Your task to perform on an android device: change notification settings in the gmail app Image 0: 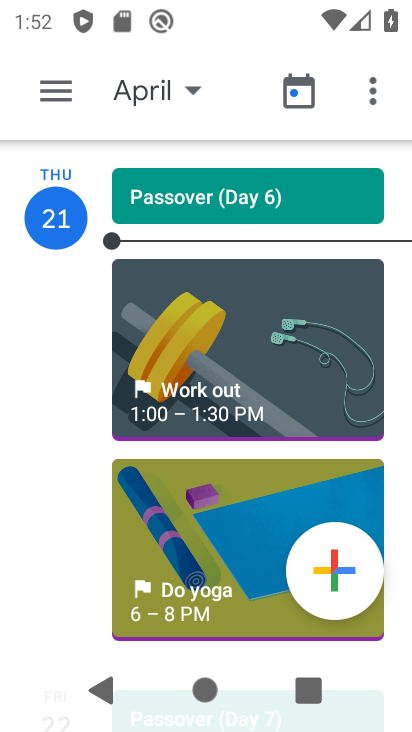
Step 0: press home button
Your task to perform on an android device: change notification settings in the gmail app Image 1: 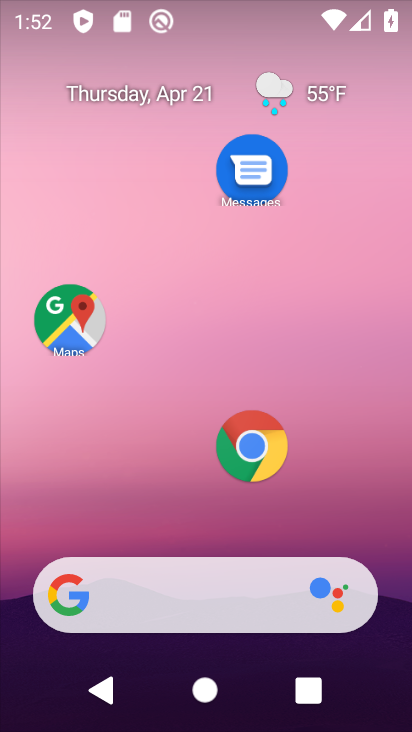
Step 1: drag from (166, 540) to (238, 69)
Your task to perform on an android device: change notification settings in the gmail app Image 2: 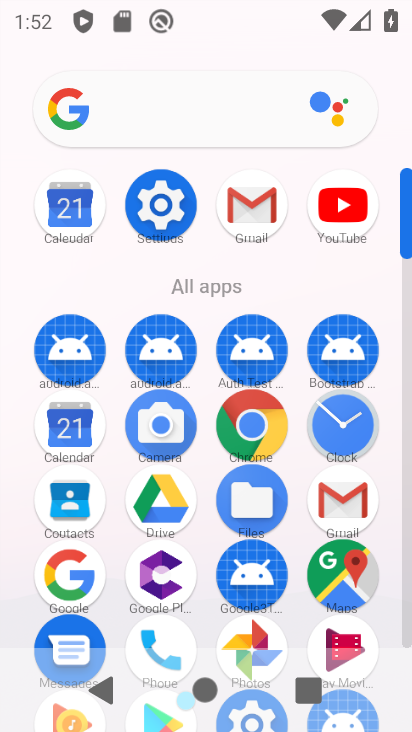
Step 2: click (254, 199)
Your task to perform on an android device: change notification settings in the gmail app Image 3: 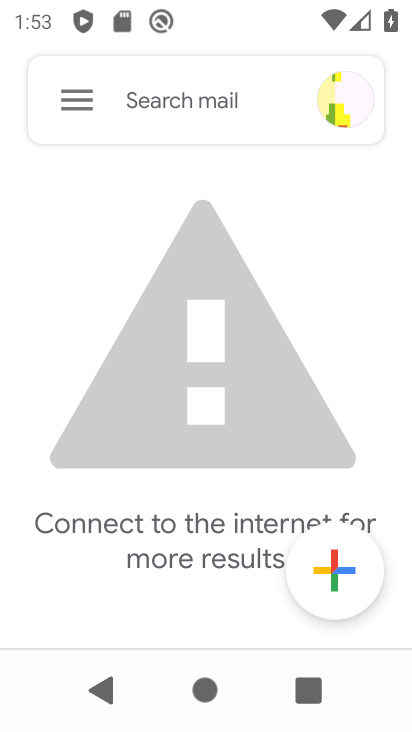
Step 3: click (79, 92)
Your task to perform on an android device: change notification settings in the gmail app Image 4: 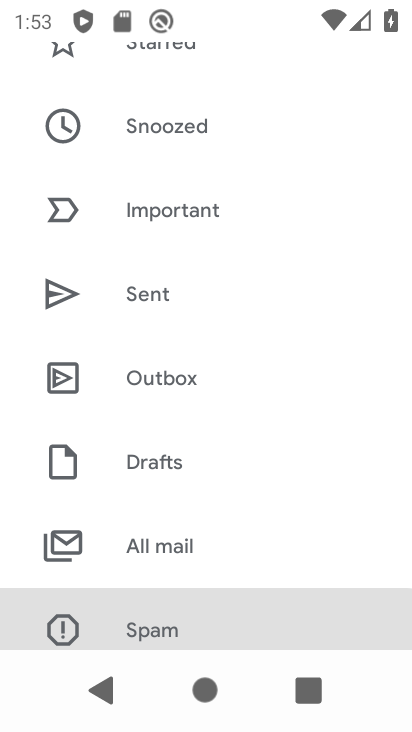
Step 4: drag from (148, 520) to (165, 367)
Your task to perform on an android device: change notification settings in the gmail app Image 5: 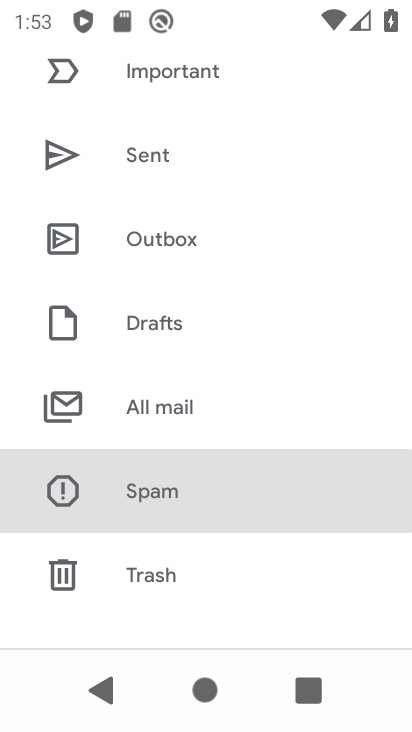
Step 5: drag from (200, 571) to (240, 412)
Your task to perform on an android device: change notification settings in the gmail app Image 6: 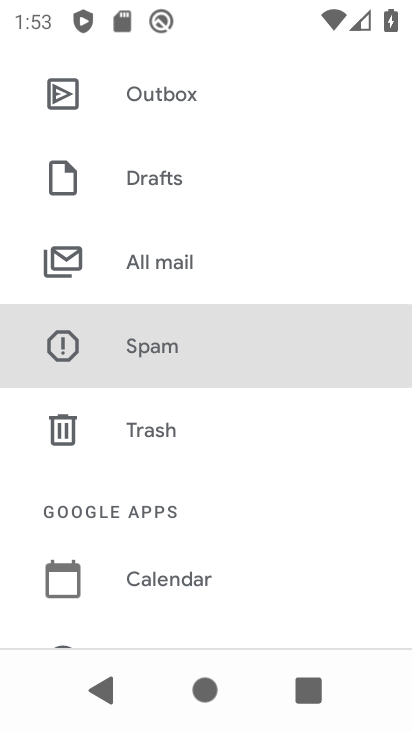
Step 6: drag from (202, 534) to (250, 383)
Your task to perform on an android device: change notification settings in the gmail app Image 7: 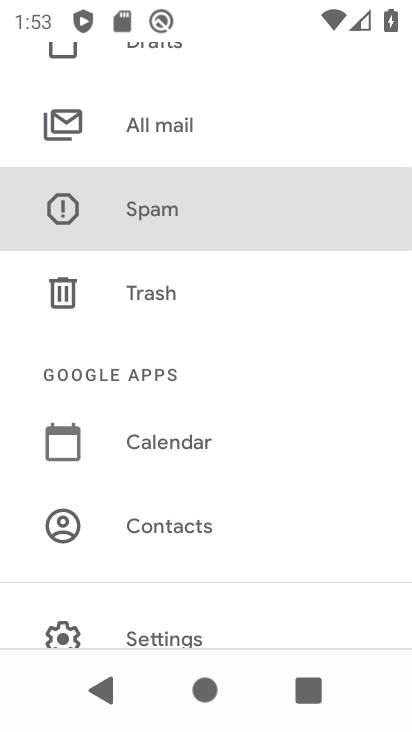
Step 7: drag from (223, 541) to (249, 408)
Your task to perform on an android device: change notification settings in the gmail app Image 8: 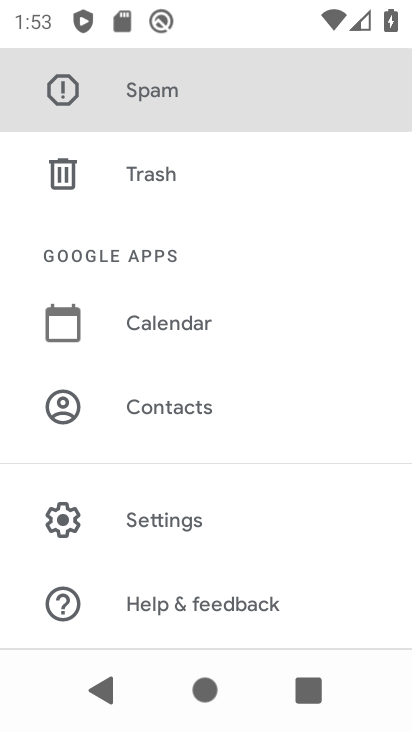
Step 8: click (178, 514)
Your task to perform on an android device: change notification settings in the gmail app Image 9: 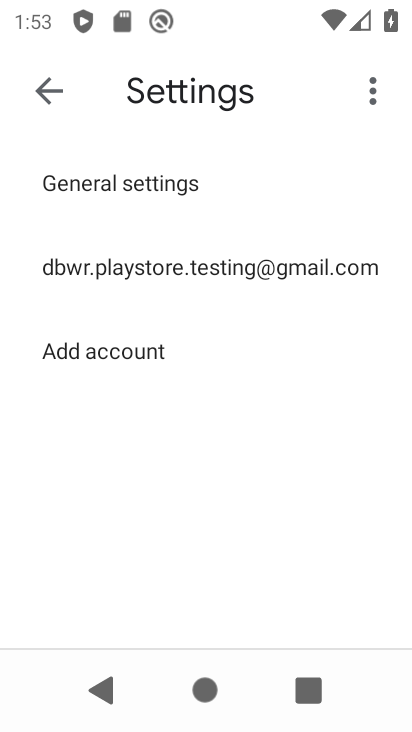
Step 9: click (255, 271)
Your task to perform on an android device: change notification settings in the gmail app Image 10: 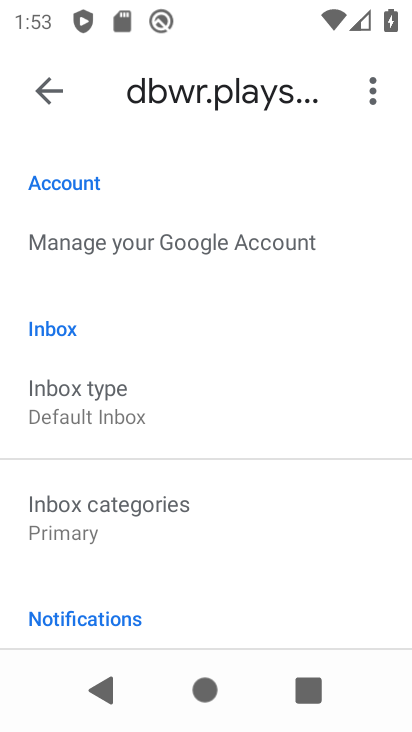
Step 10: drag from (156, 484) to (202, 388)
Your task to perform on an android device: change notification settings in the gmail app Image 11: 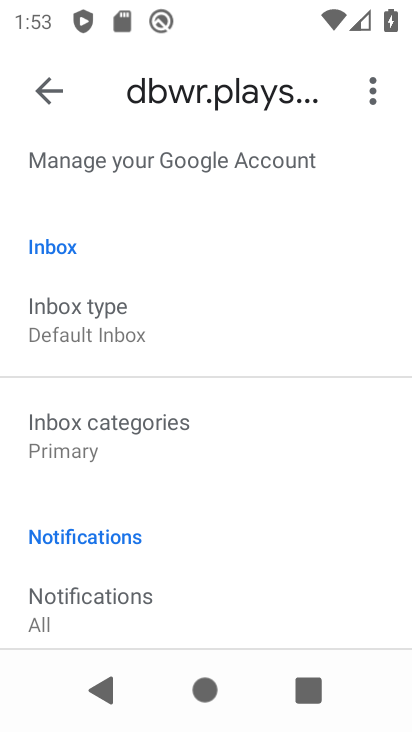
Step 11: drag from (156, 546) to (192, 390)
Your task to perform on an android device: change notification settings in the gmail app Image 12: 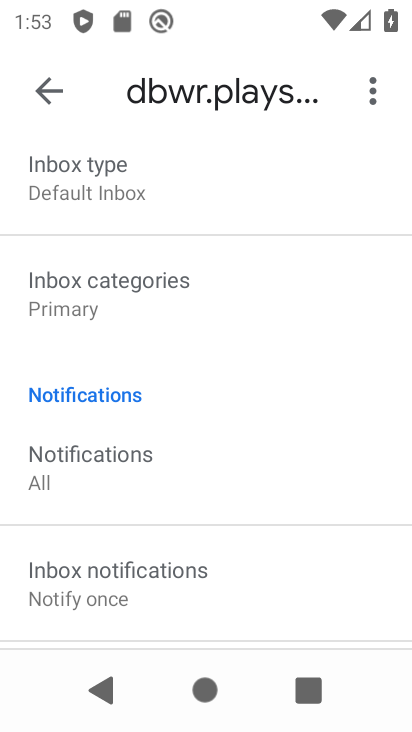
Step 12: drag from (163, 517) to (242, 381)
Your task to perform on an android device: change notification settings in the gmail app Image 13: 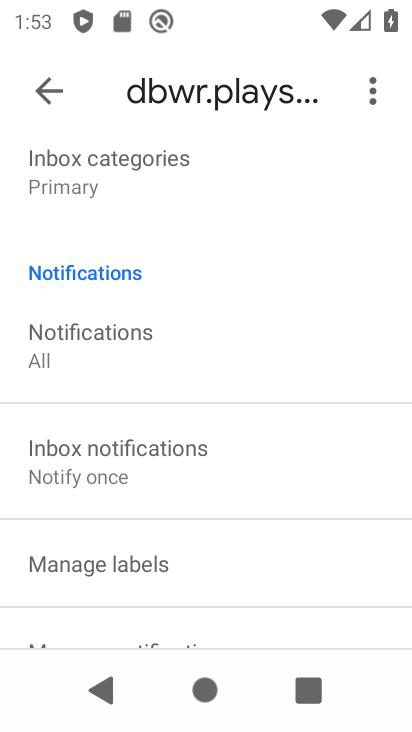
Step 13: click (192, 475)
Your task to perform on an android device: change notification settings in the gmail app Image 14: 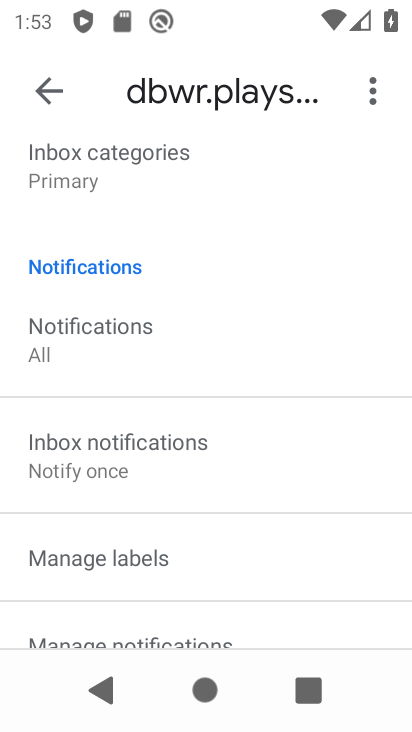
Step 14: drag from (161, 616) to (219, 414)
Your task to perform on an android device: change notification settings in the gmail app Image 15: 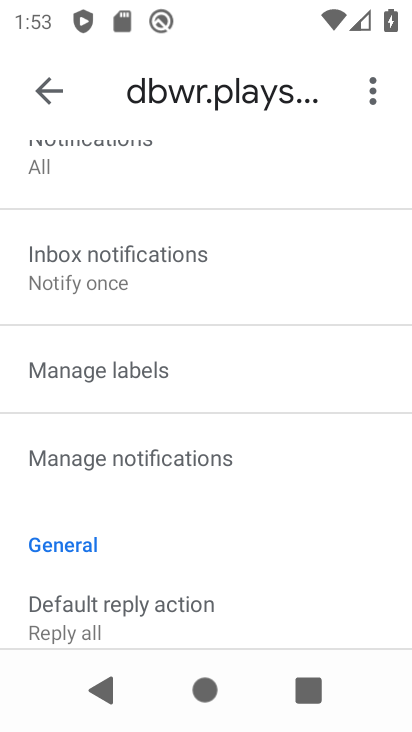
Step 15: click (184, 464)
Your task to perform on an android device: change notification settings in the gmail app Image 16: 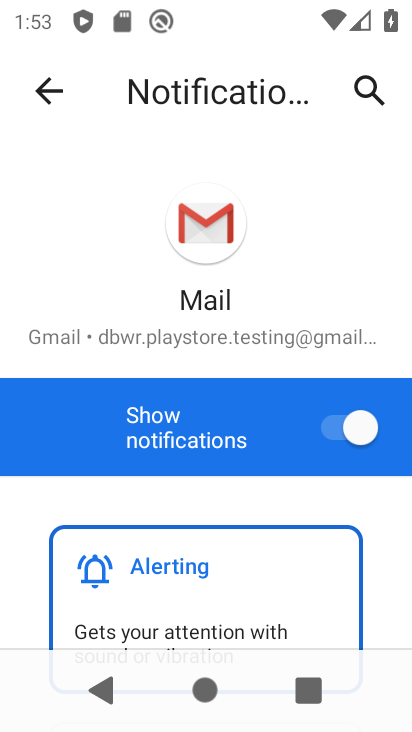
Step 16: click (343, 440)
Your task to perform on an android device: change notification settings in the gmail app Image 17: 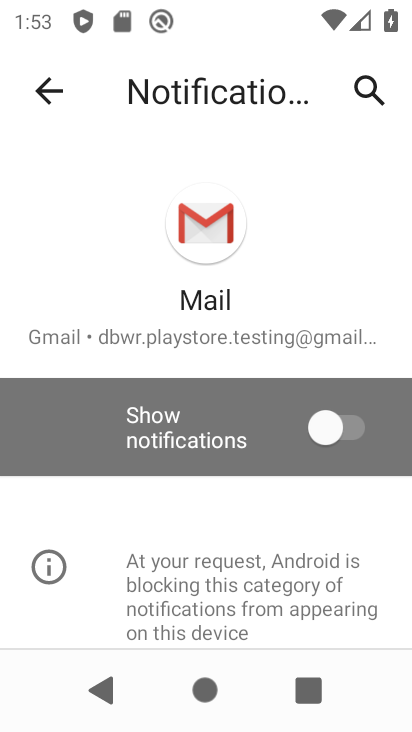
Step 17: task complete